Your task to perform on an android device: Empty the shopping cart on walmart.com. Image 0: 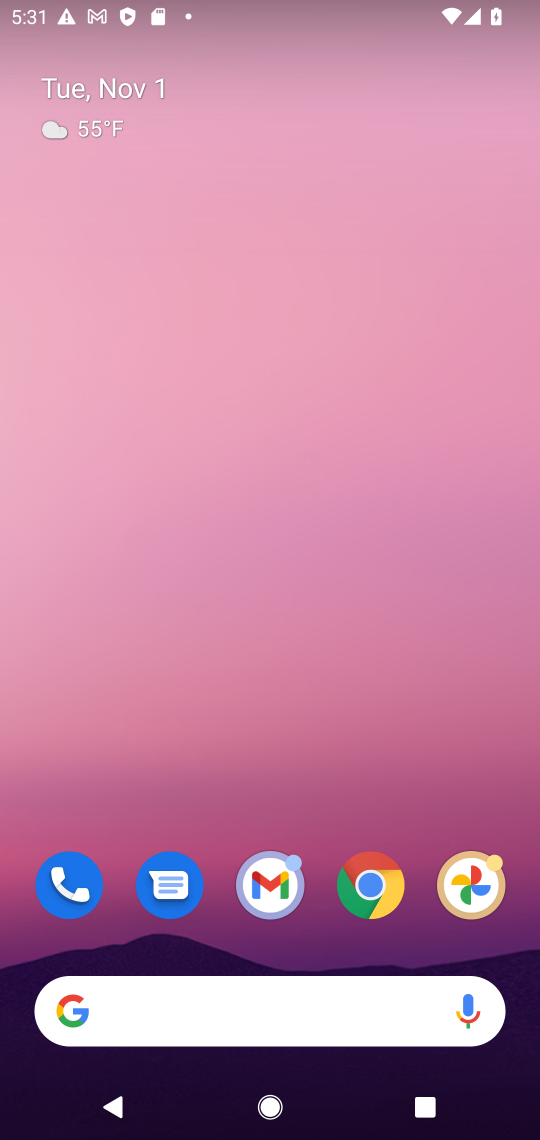
Step 0: click (368, 883)
Your task to perform on an android device: Empty the shopping cart on walmart.com. Image 1: 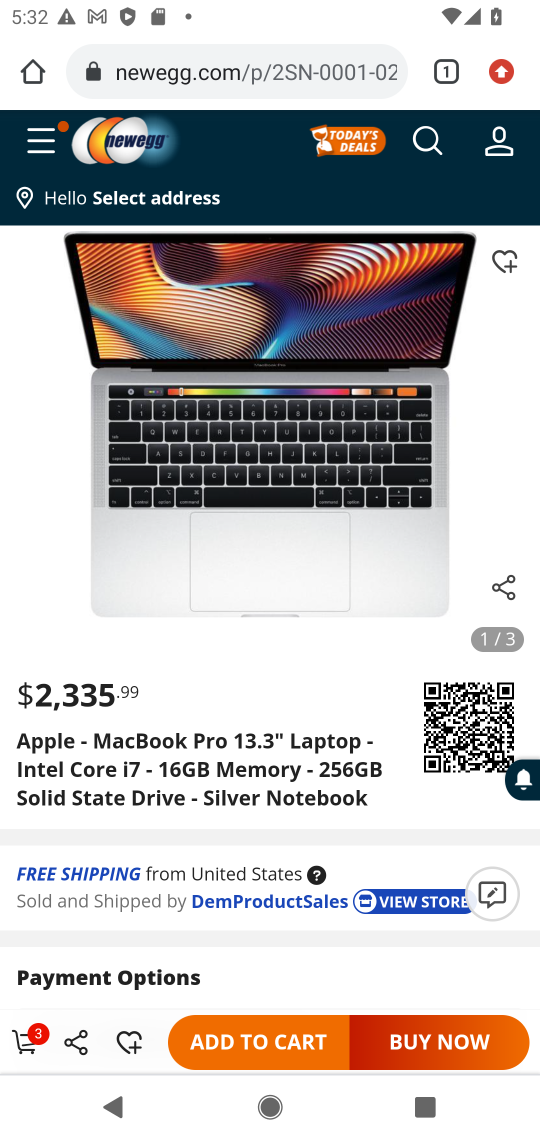
Step 1: click (267, 50)
Your task to perform on an android device: Empty the shopping cart on walmart.com. Image 2: 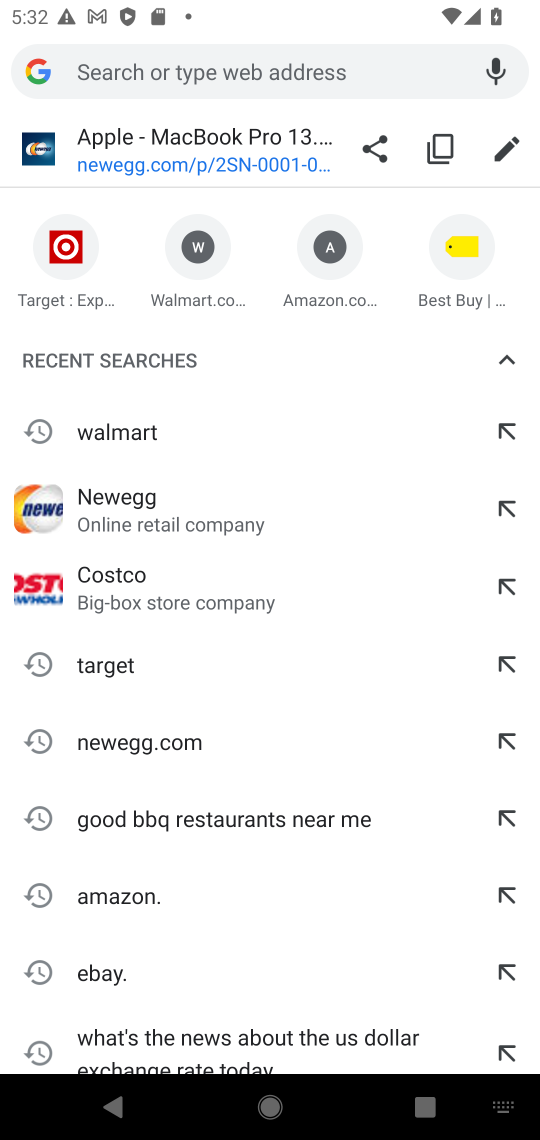
Step 2: type "walmart.com"
Your task to perform on an android device: Empty the shopping cart on walmart.com. Image 3: 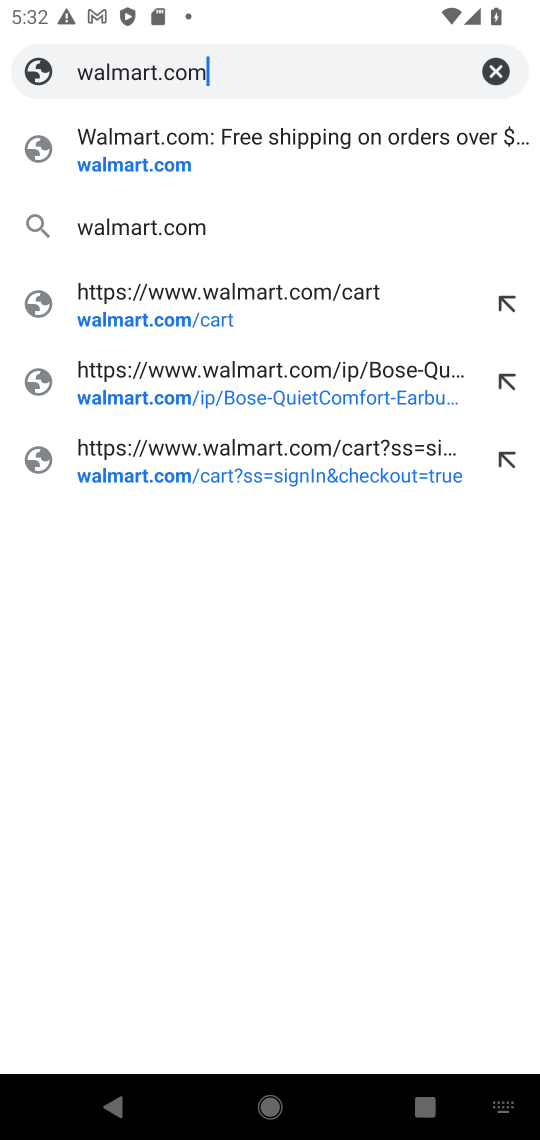
Step 3: click (131, 143)
Your task to perform on an android device: Empty the shopping cart on walmart.com. Image 4: 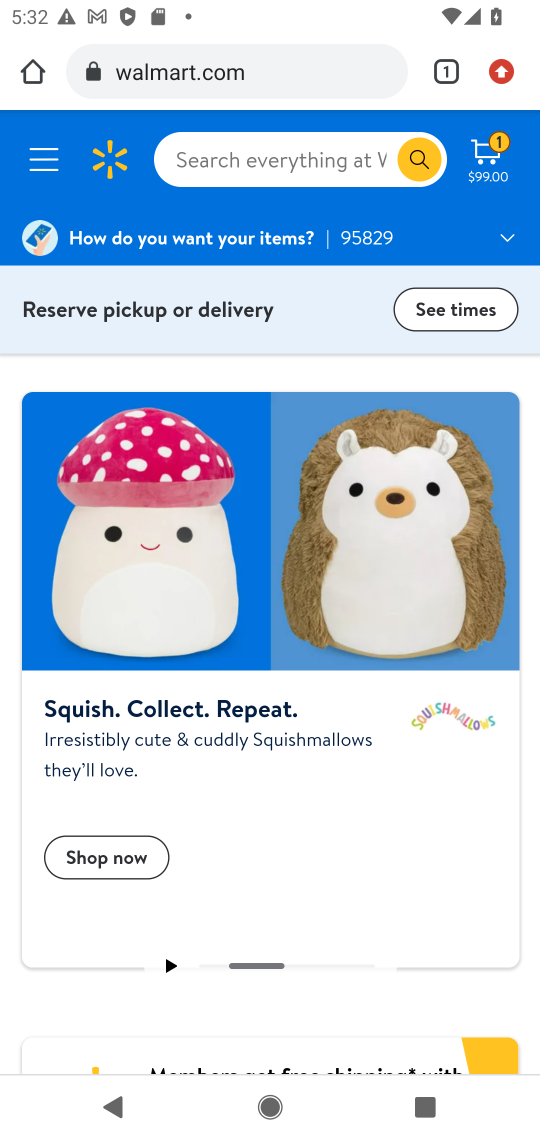
Step 4: click (485, 149)
Your task to perform on an android device: Empty the shopping cart on walmart.com. Image 5: 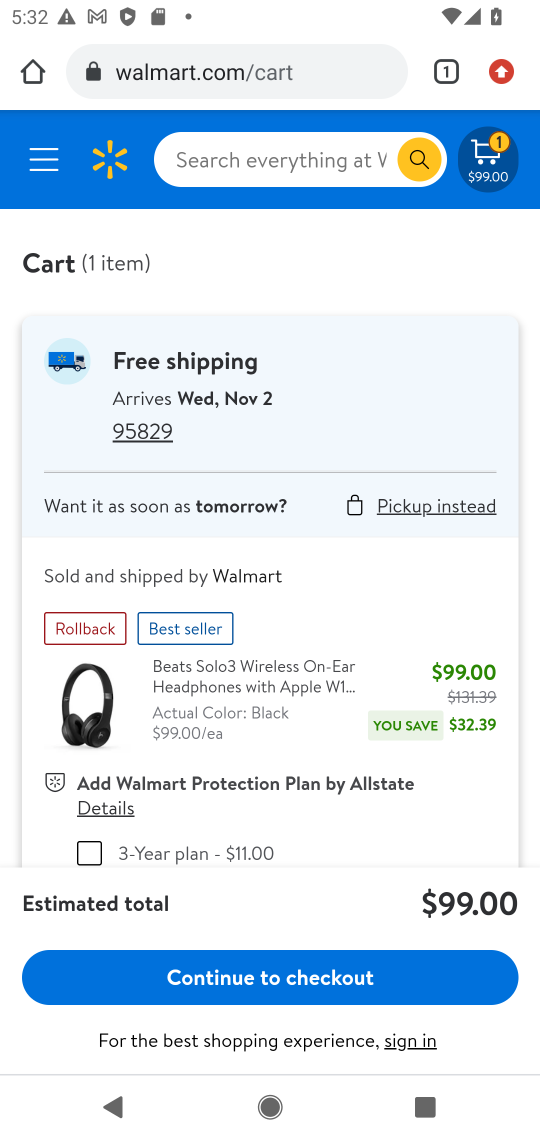
Step 5: drag from (360, 836) to (338, 373)
Your task to perform on an android device: Empty the shopping cart on walmart.com. Image 6: 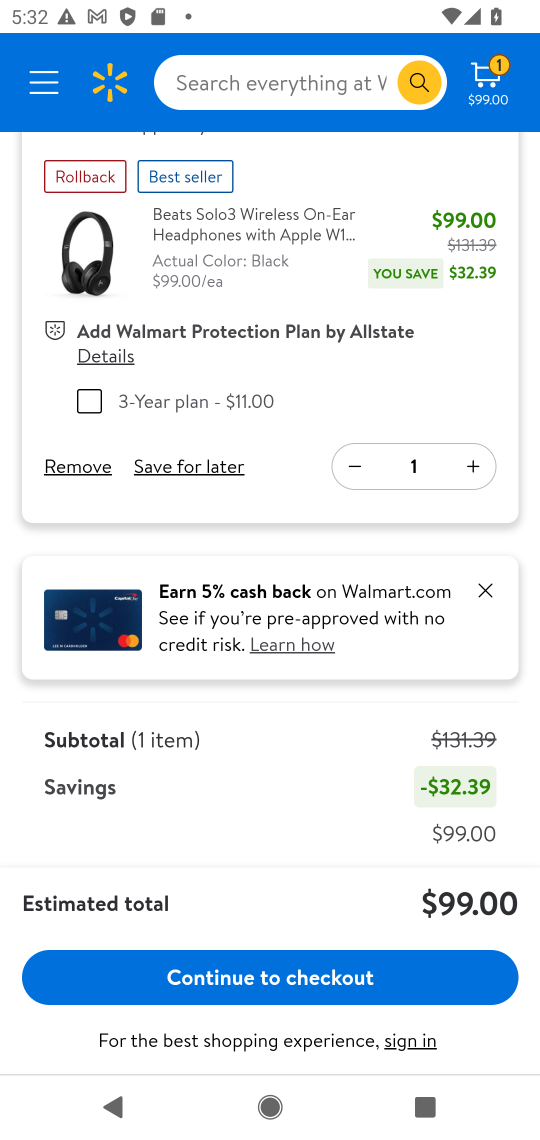
Step 6: click (76, 464)
Your task to perform on an android device: Empty the shopping cart on walmart.com. Image 7: 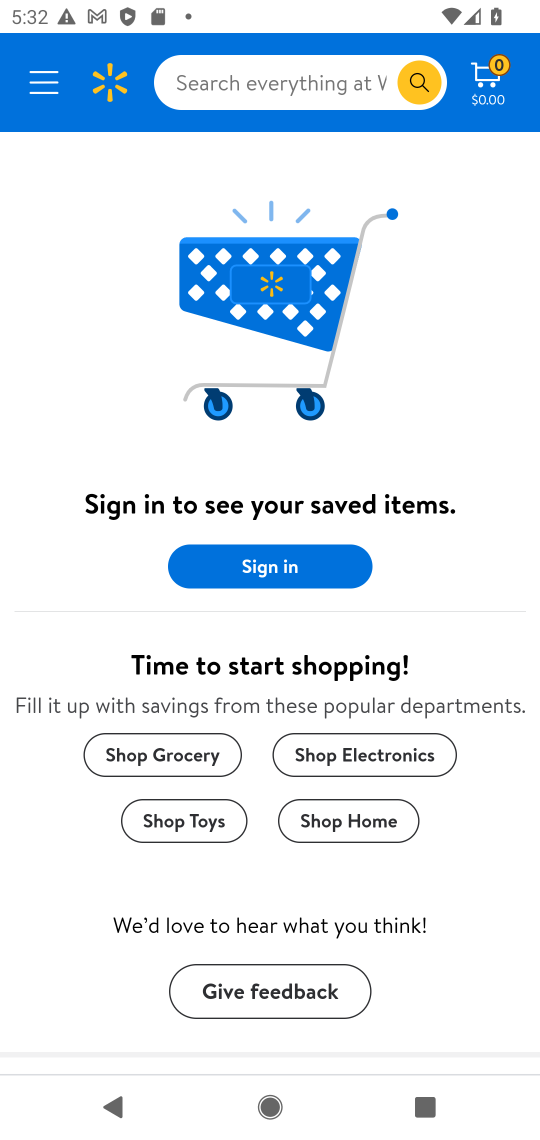
Step 7: task complete